Your task to perform on an android device: change alarm snooze length Image 0: 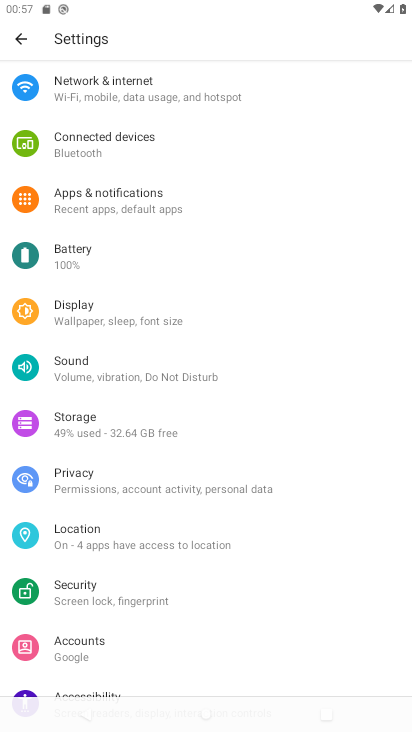
Step 0: press home button
Your task to perform on an android device: change alarm snooze length Image 1: 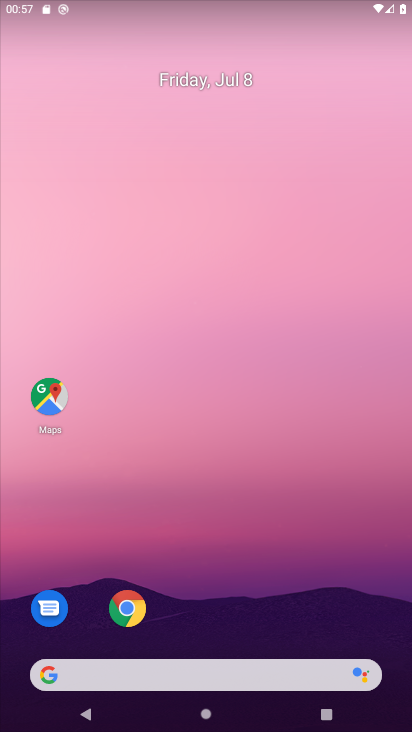
Step 1: click (230, 115)
Your task to perform on an android device: change alarm snooze length Image 2: 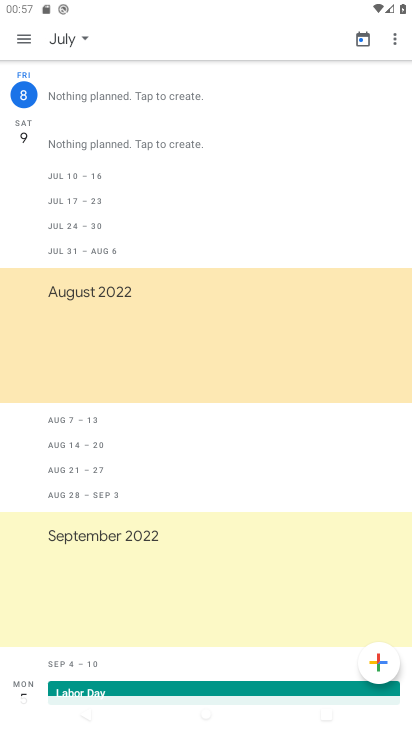
Step 2: drag from (228, 432) to (254, 188)
Your task to perform on an android device: change alarm snooze length Image 3: 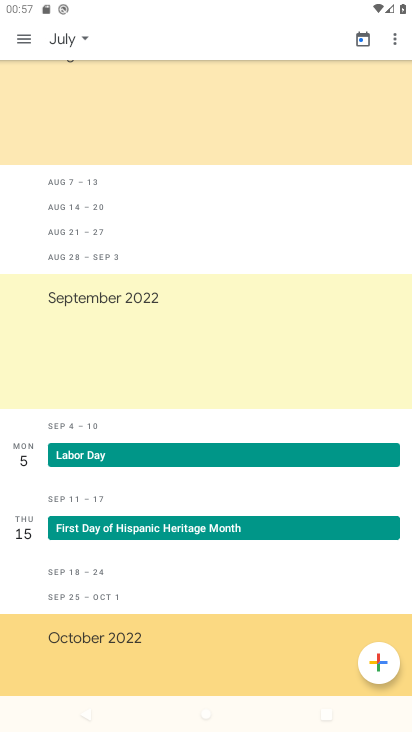
Step 3: press home button
Your task to perform on an android device: change alarm snooze length Image 4: 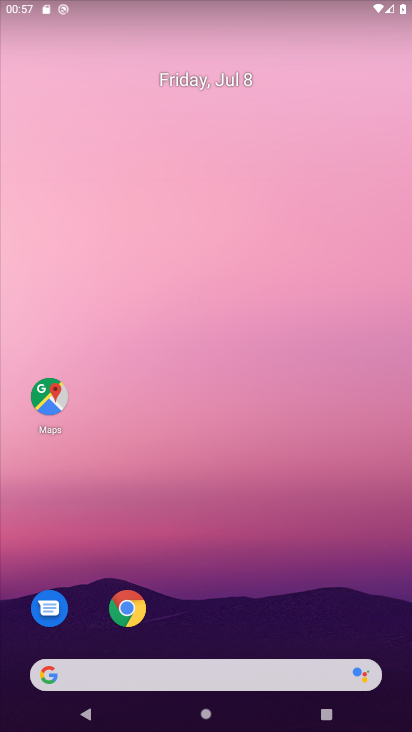
Step 4: drag from (185, 604) to (221, 242)
Your task to perform on an android device: change alarm snooze length Image 5: 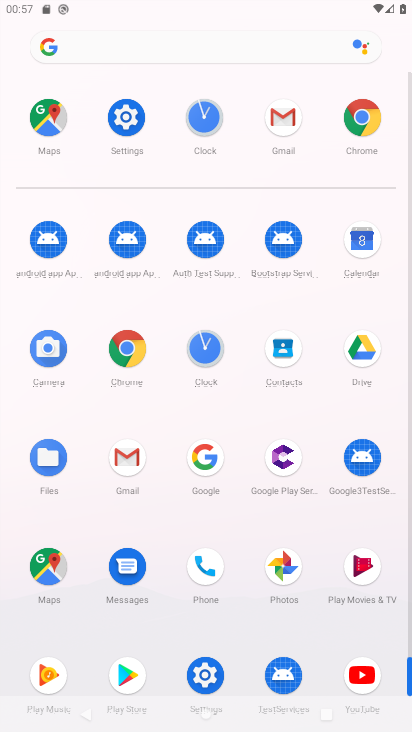
Step 5: click (198, 122)
Your task to perform on an android device: change alarm snooze length Image 6: 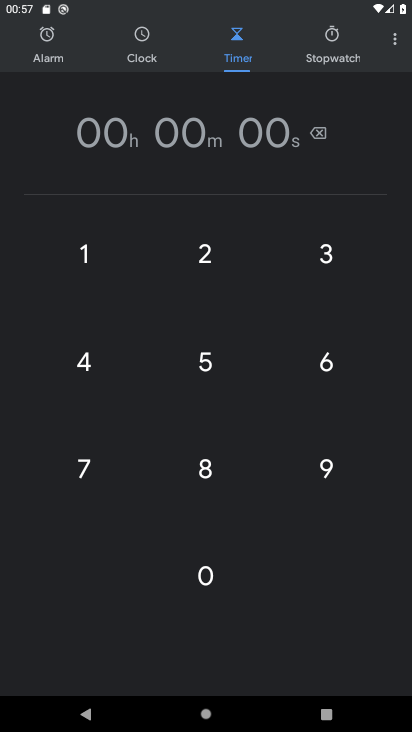
Step 6: click (390, 36)
Your task to perform on an android device: change alarm snooze length Image 7: 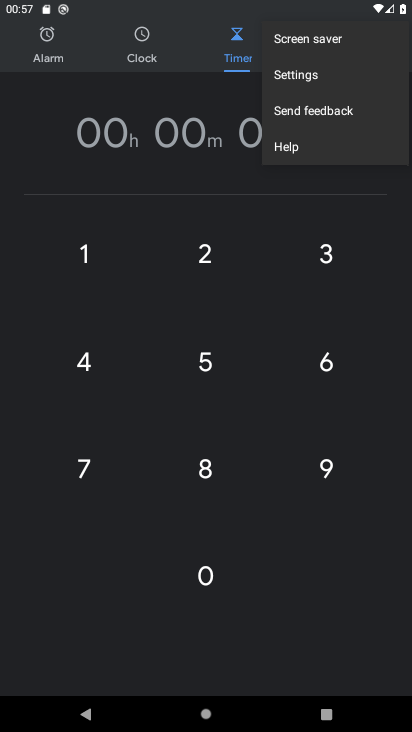
Step 7: click (288, 71)
Your task to perform on an android device: change alarm snooze length Image 8: 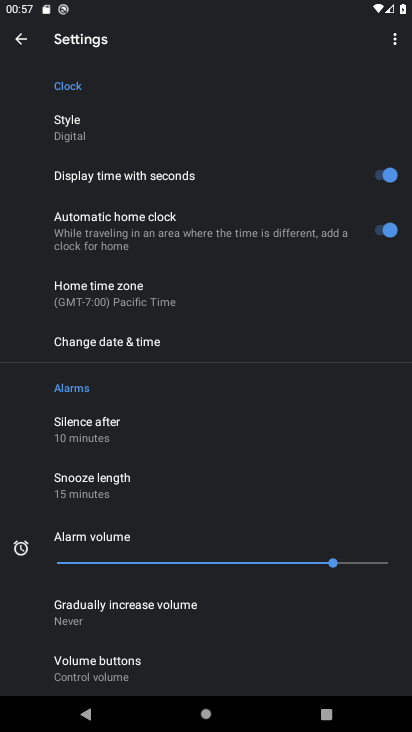
Step 8: click (151, 493)
Your task to perform on an android device: change alarm snooze length Image 9: 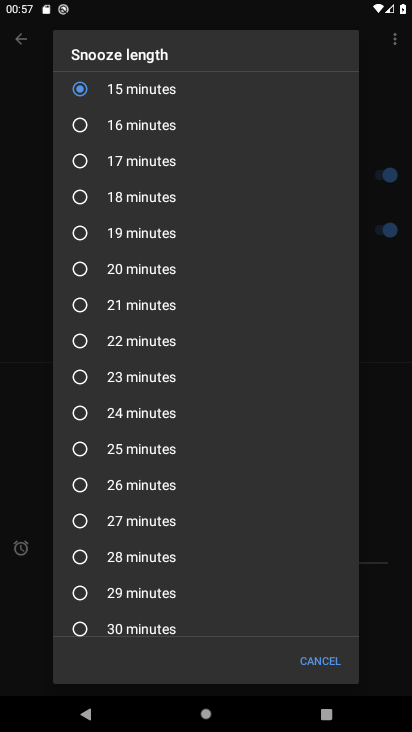
Step 9: click (127, 440)
Your task to perform on an android device: change alarm snooze length Image 10: 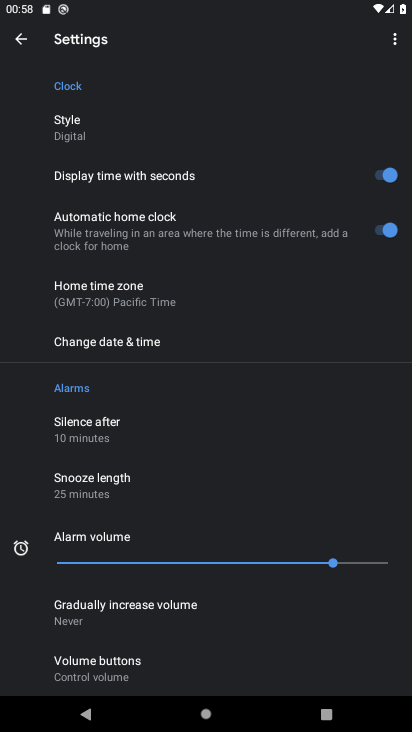
Step 10: task complete